Your task to perform on an android device: Is it going to rain this weekend? Image 0: 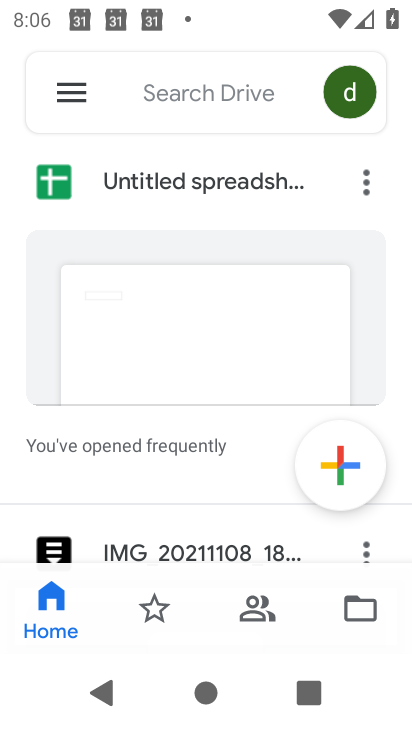
Step 0: press home button
Your task to perform on an android device: Is it going to rain this weekend? Image 1: 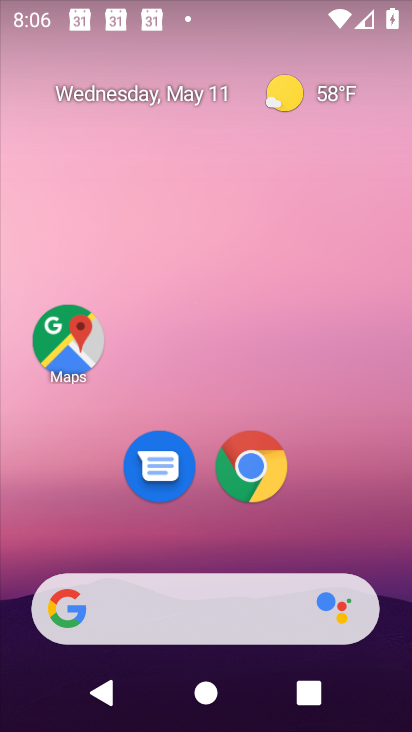
Step 1: drag from (185, 551) to (246, 77)
Your task to perform on an android device: Is it going to rain this weekend? Image 2: 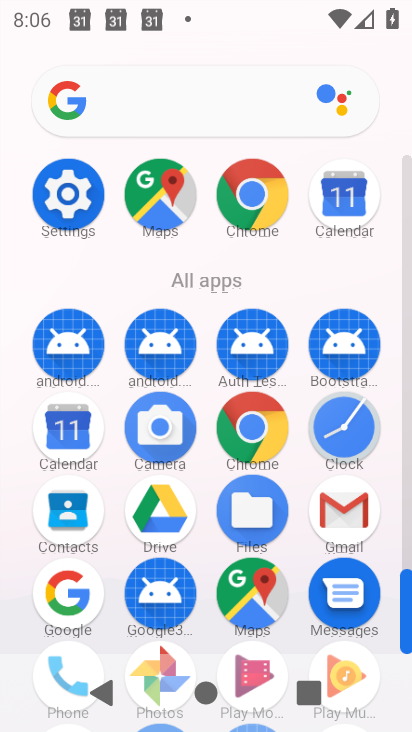
Step 2: click (199, 111)
Your task to perform on an android device: Is it going to rain this weekend? Image 3: 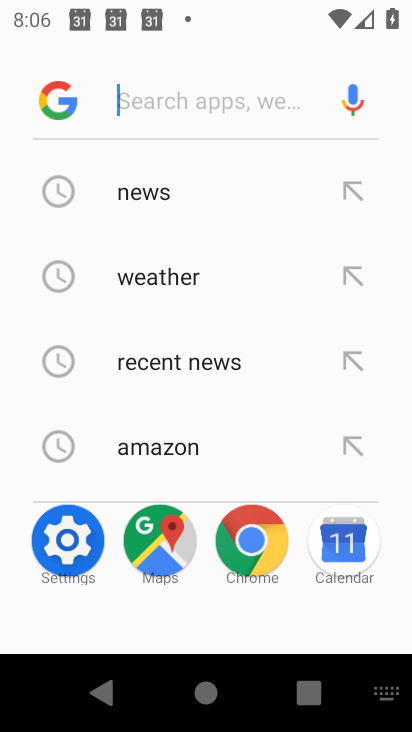
Step 3: type "is it going to rain this weekend"
Your task to perform on an android device: Is it going to rain this weekend? Image 4: 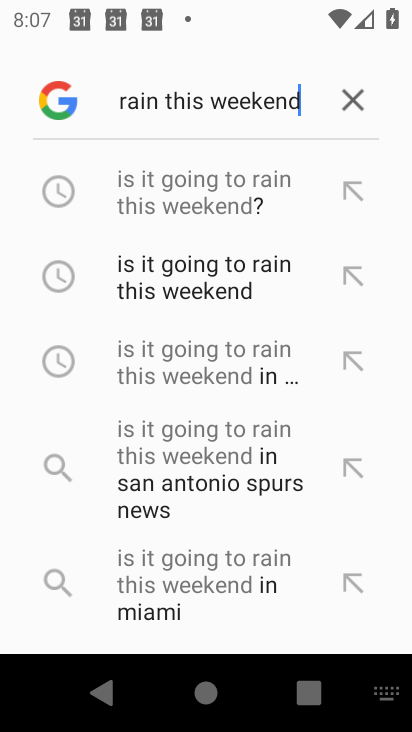
Step 4: click (223, 181)
Your task to perform on an android device: Is it going to rain this weekend? Image 5: 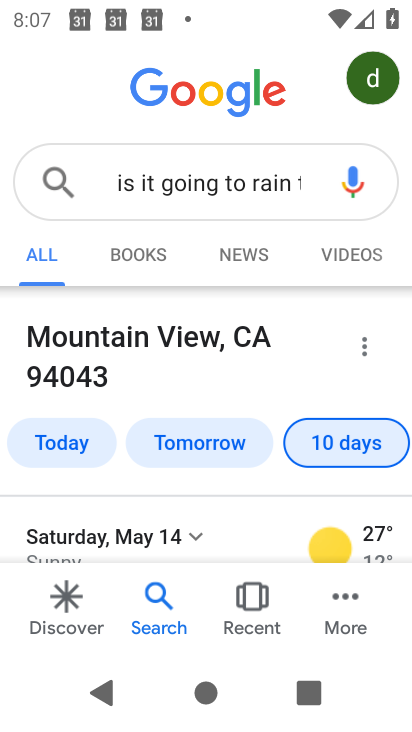
Step 5: task complete